Your task to perform on an android device: Show me productivity apps on the Play Store Image 0: 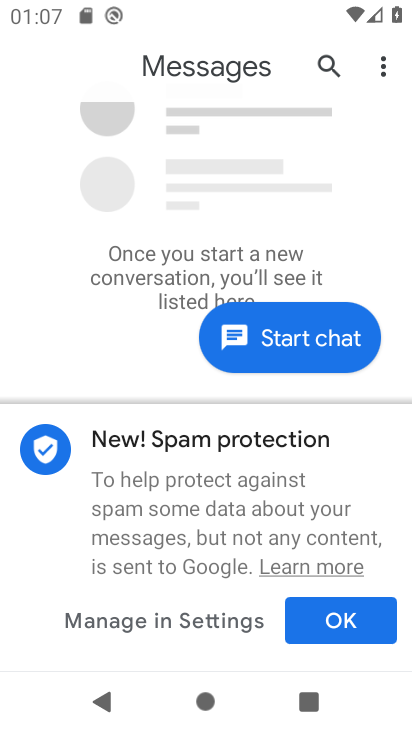
Step 0: press home button
Your task to perform on an android device: Show me productivity apps on the Play Store Image 1: 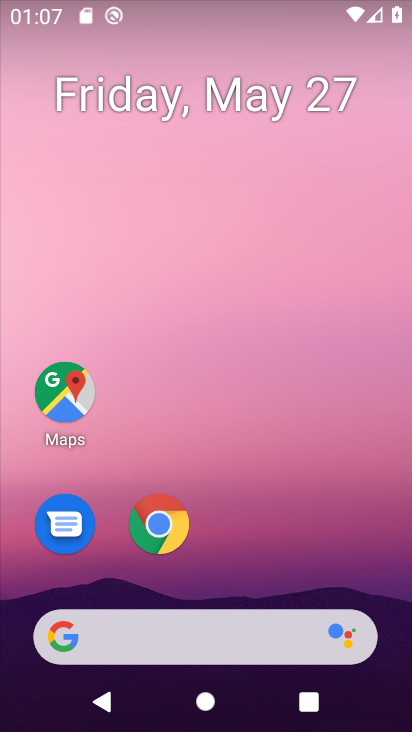
Step 1: drag from (254, 547) to (235, 22)
Your task to perform on an android device: Show me productivity apps on the Play Store Image 2: 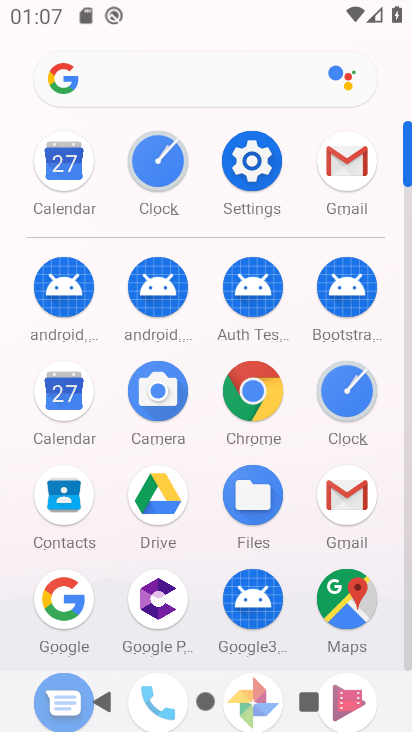
Step 2: drag from (211, 551) to (172, 230)
Your task to perform on an android device: Show me productivity apps on the Play Store Image 3: 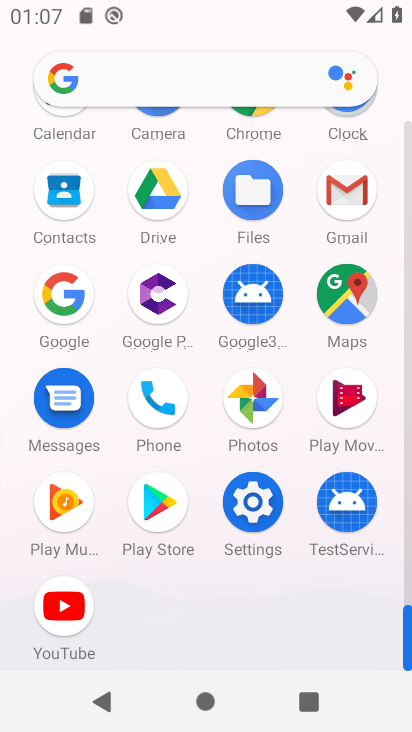
Step 3: click (157, 492)
Your task to perform on an android device: Show me productivity apps on the Play Store Image 4: 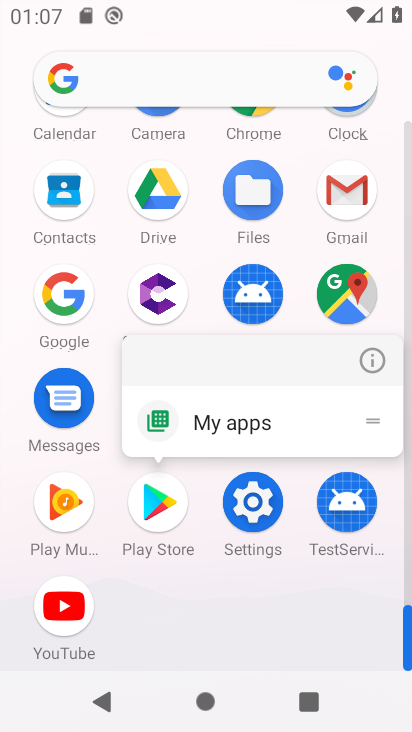
Step 4: click (157, 492)
Your task to perform on an android device: Show me productivity apps on the Play Store Image 5: 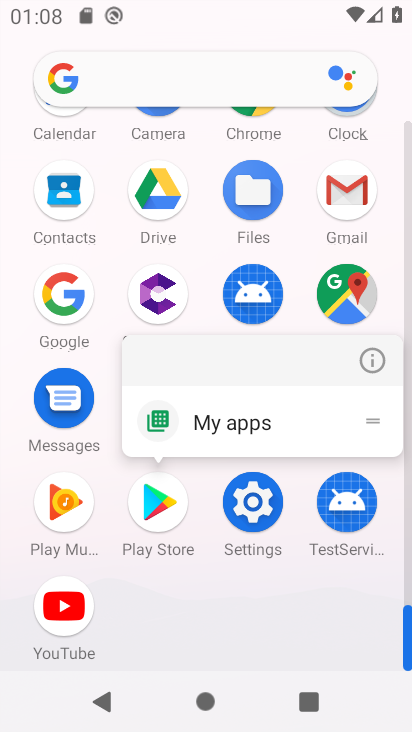
Step 5: click (162, 499)
Your task to perform on an android device: Show me productivity apps on the Play Store Image 6: 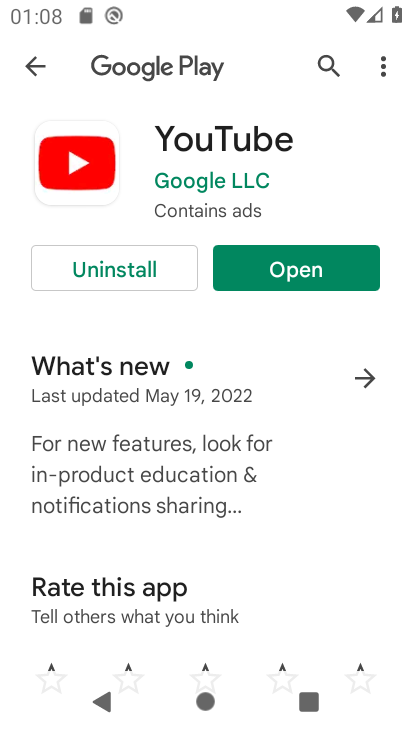
Step 6: click (251, 555)
Your task to perform on an android device: Show me productivity apps on the Play Store Image 7: 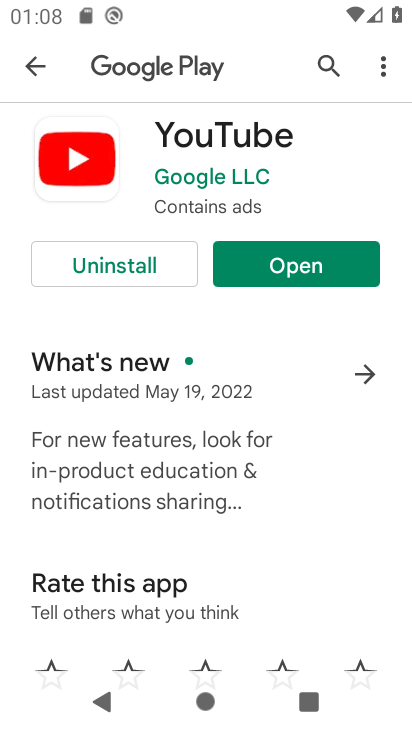
Step 7: click (37, 57)
Your task to perform on an android device: Show me productivity apps on the Play Store Image 8: 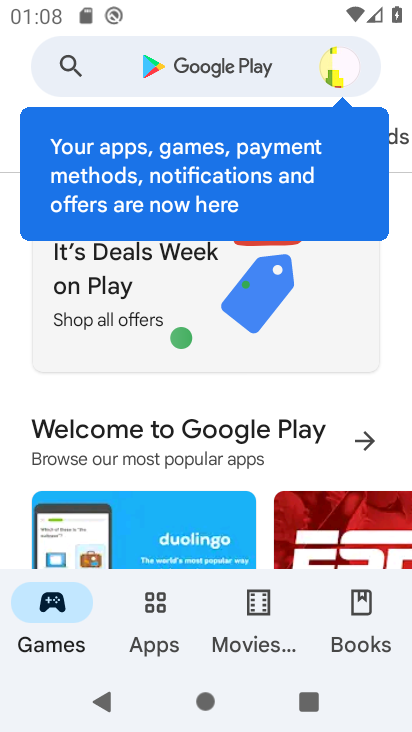
Step 8: click (153, 603)
Your task to perform on an android device: Show me productivity apps on the Play Store Image 9: 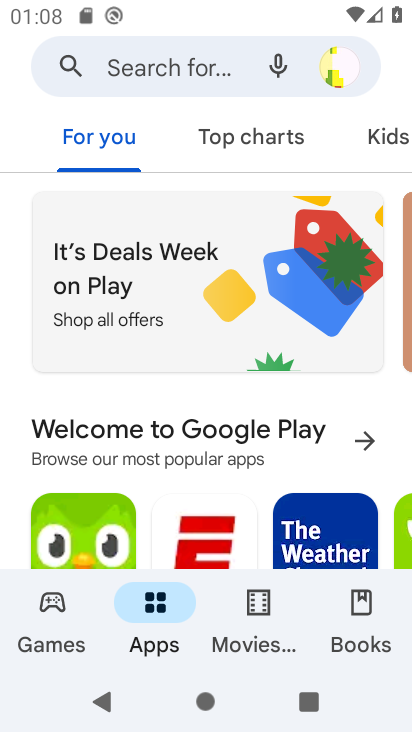
Step 9: drag from (344, 136) to (135, 123)
Your task to perform on an android device: Show me productivity apps on the Play Store Image 10: 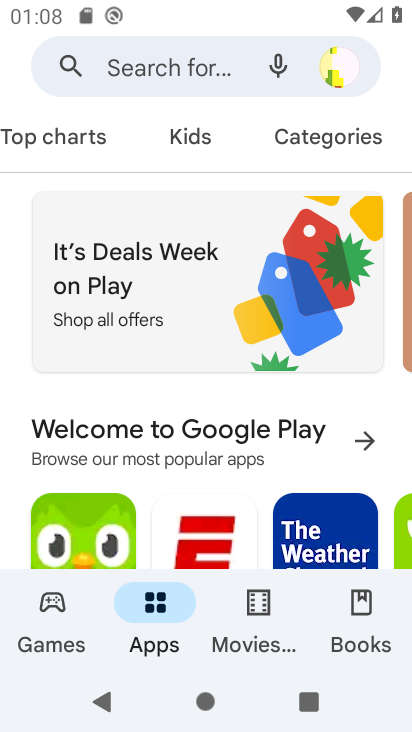
Step 10: click (314, 134)
Your task to perform on an android device: Show me productivity apps on the Play Store Image 11: 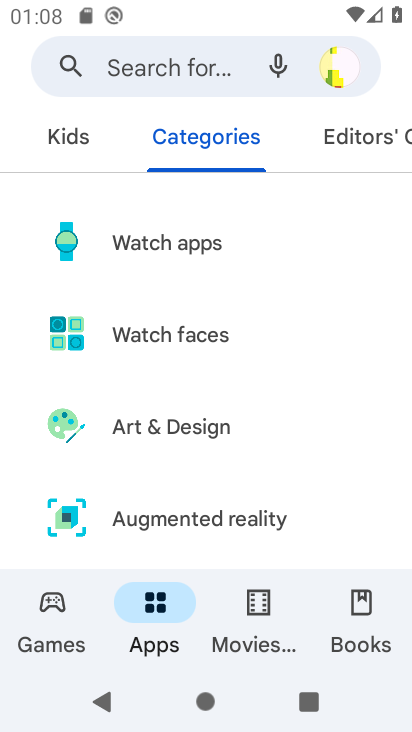
Step 11: drag from (287, 522) to (285, 99)
Your task to perform on an android device: Show me productivity apps on the Play Store Image 12: 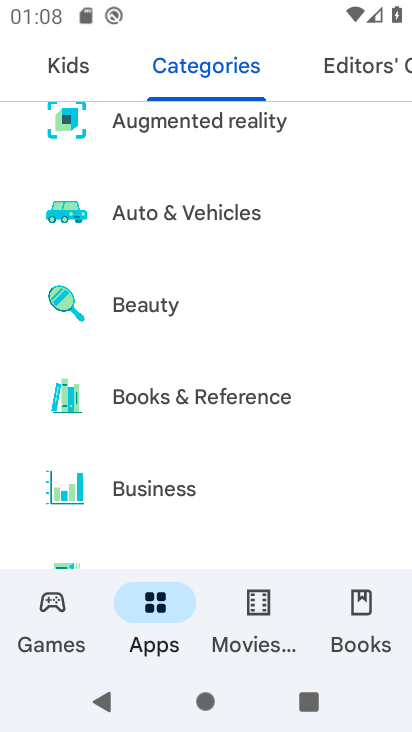
Step 12: drag from (269, 481) to (297, 31)
Your task to perform on an android device: Show me productivity apps on the Play Store Image 13: 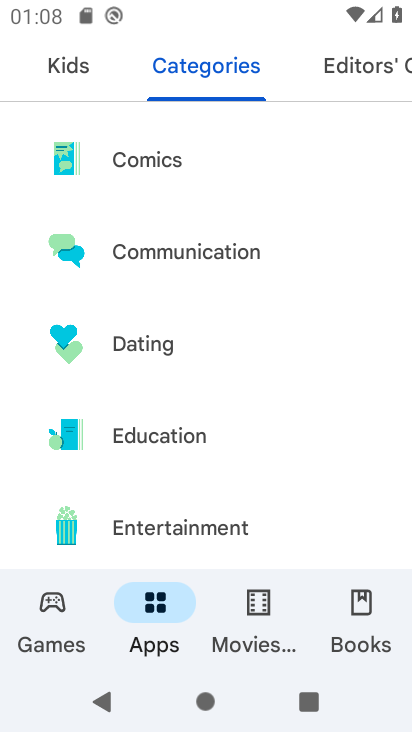
Step 13: drag from (257, 493) to (297, 52)
Your task to perform on an android device: Show me productivity apps on the Play Store Image 14: 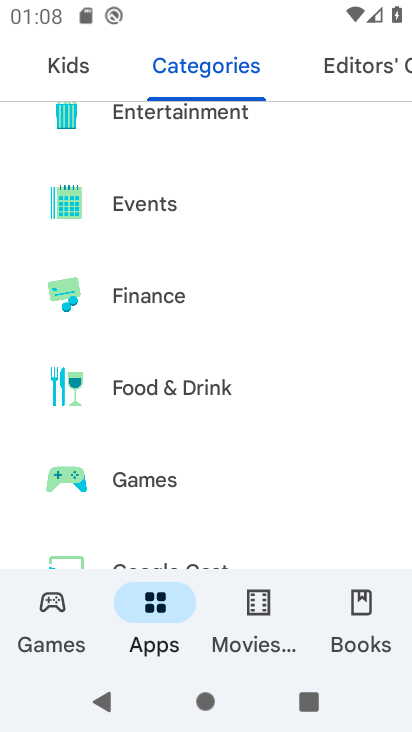
Step 14: drag from (244, 472) to (276, 68)
Your task to perform on an android device: Show me productivity apps on the Play Store Image 15: 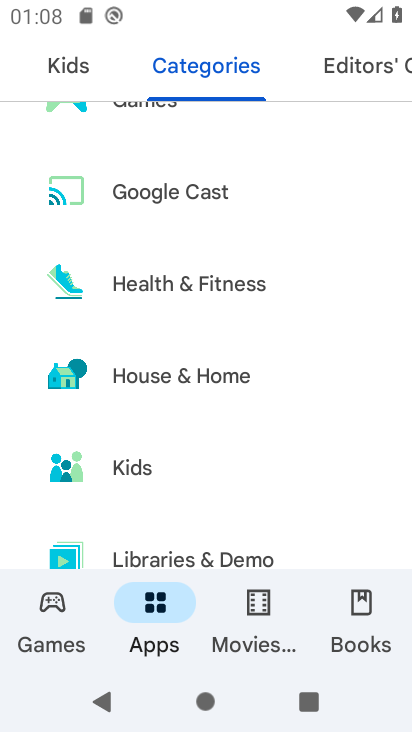
Step 15: drag from (232, 472) to (269, 58)
Your task to perform on an android device: Show me productivity apps on the Play Store Image 16: 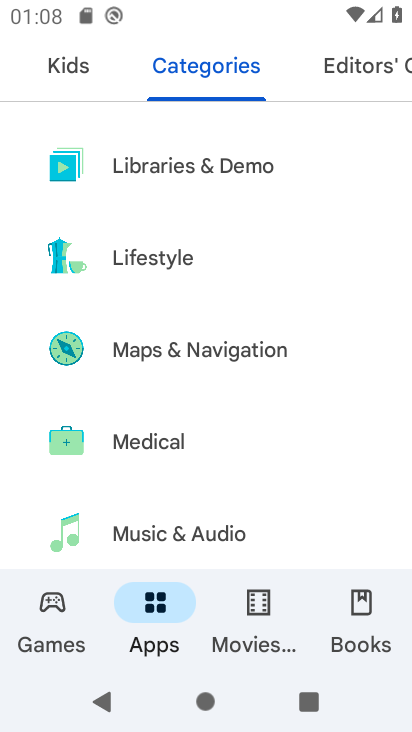
Step 16: drag from (248, 472) to (290, 34)
Your task to perform on an android device: Show me productivity apps on the Play Store Image 17: 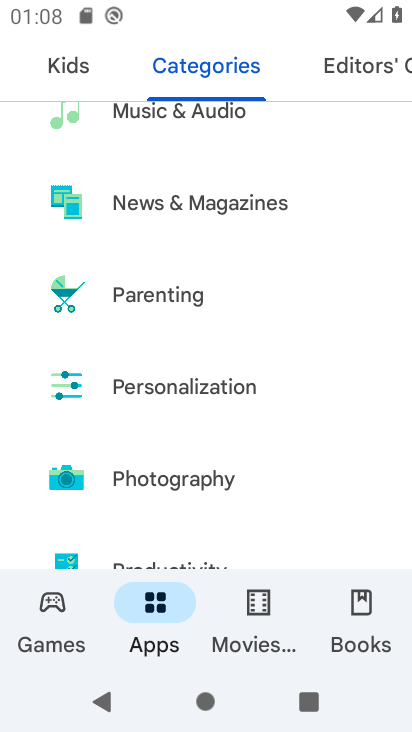
Step 17: drag from (287, 445) to (305, 133)
Your task to perform on an android device: Show me productivity apps on the Play Store Image 18: 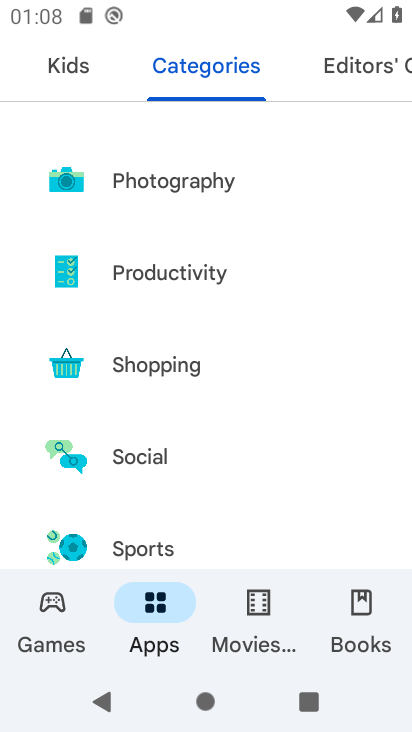
Step 18: click (221, 272)
Your task to perform on an android device: Show me productivity apps on the Play Store Image 19: 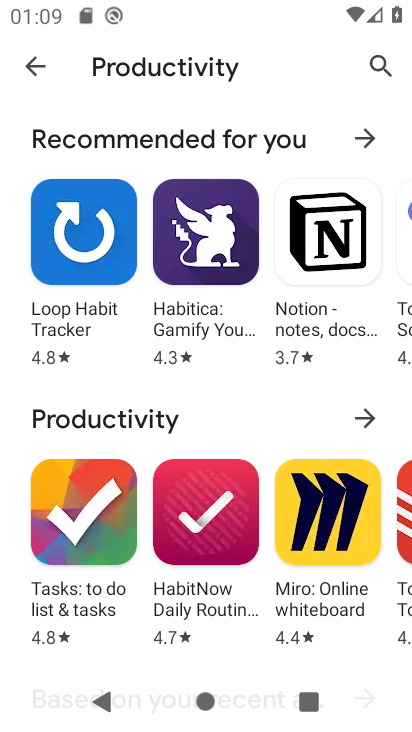
Step 19: click (361, 411)
Your task to perform on an android device: Show me productivity apps on the Play Store Image 20: 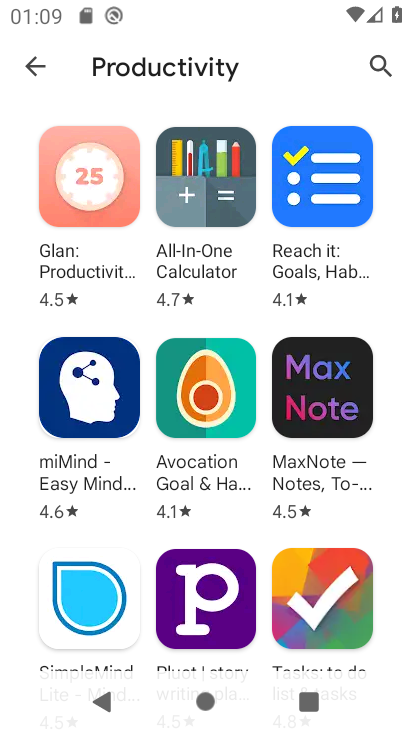
Step 20: task complete